Your task to perform on an android device: search for starred emails in the gmail app Image 0: 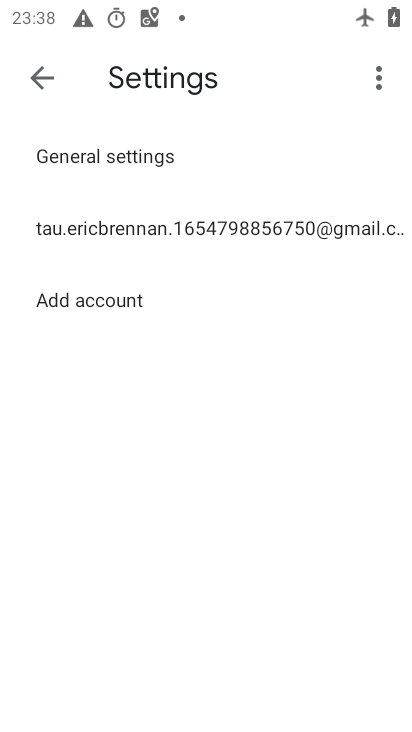
Step 0: click (41, 81)
Your task to perform on an android device: search for starred emails in the gmail app Image 1: 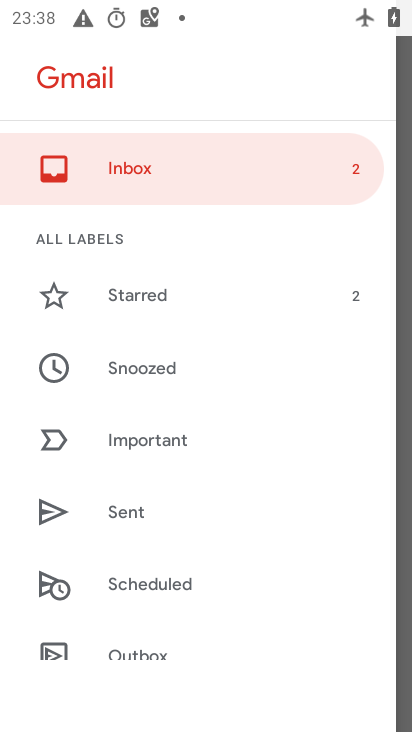
Step 1: click (156, 295)
Your task to perform on an android device: search for starred emails in the gmail app Image 2: 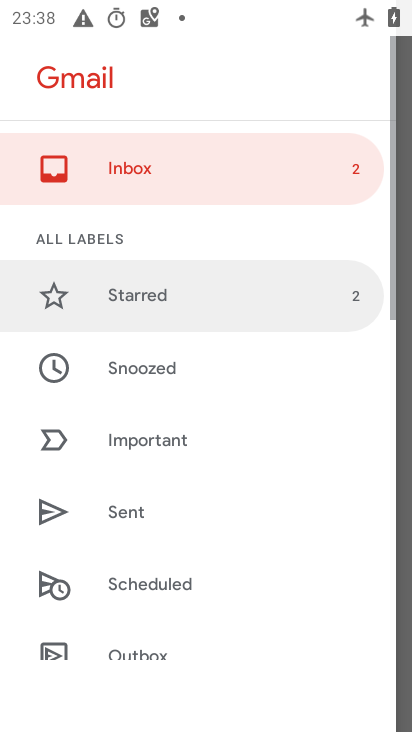
Step 2: click (156, 294)
Your task to perform on an android device: search for starred emails in the gmail app Image 3: 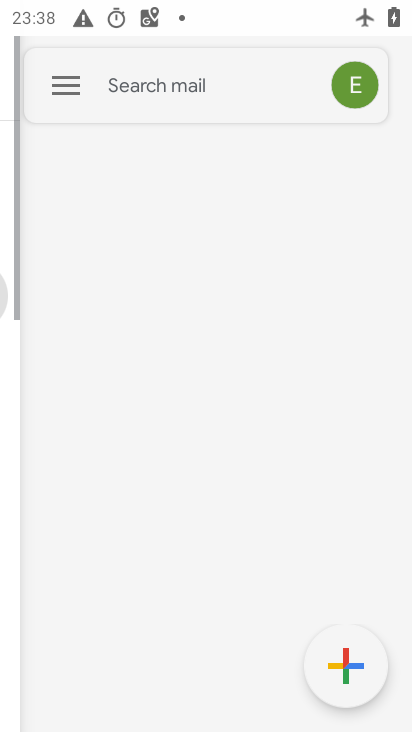
Step 3: click (156, 293)
Your task to perform on an android device: search for starred emails in the gmail app Image 4: 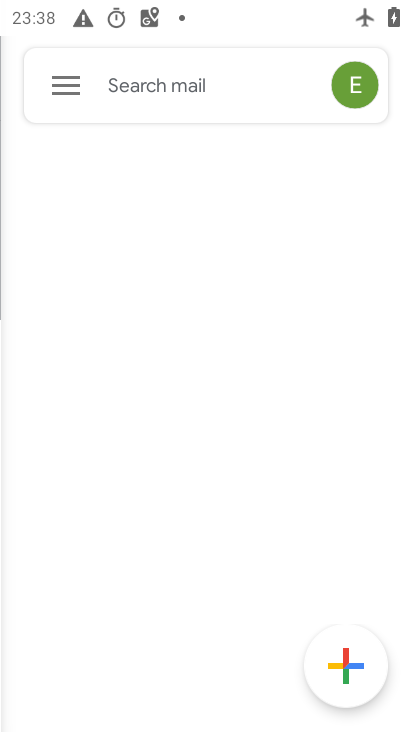
Step 4: click (156, 293)
Your task to perform on an android device: search for starred emails in the gmail app Image 5: 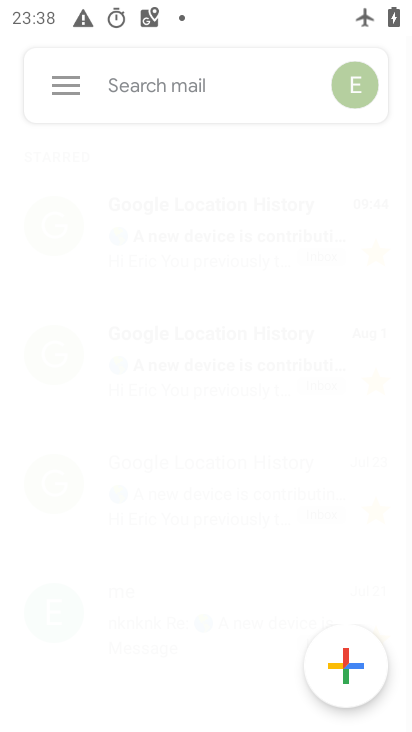
Step 5: click (155, 292)
Your task to perform on an android device: search for starred emails in the gmail app Image 6: 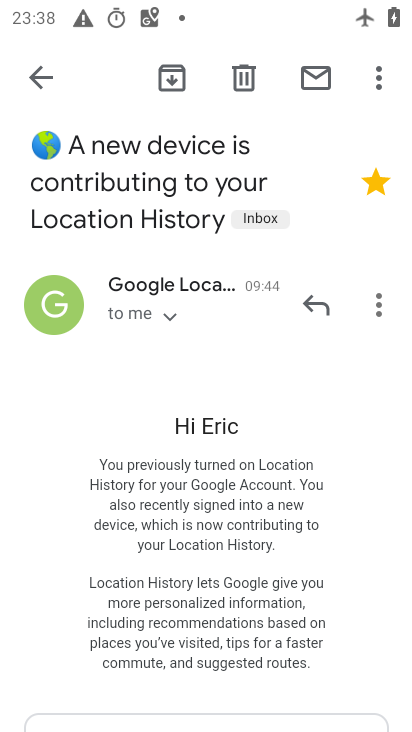
Step 6: task complete